Your task to perform on an android device: toggle notification dots Image 0: 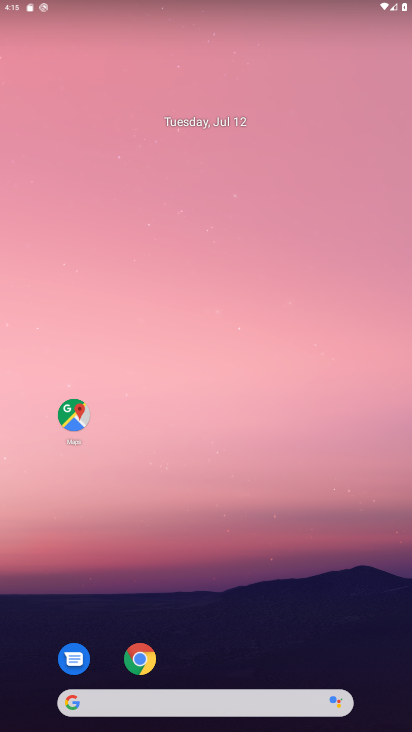
Step 0: drag from (46, 687) to (232, 300)
Your task to perform on an android device: toggle notification dots Image 1: 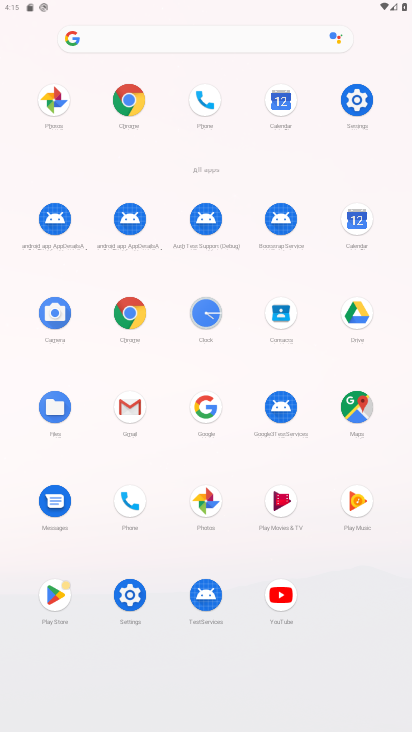
Step 1: click (132, 596)
Your task to perform on an android device: toggle notification dots Image 2: 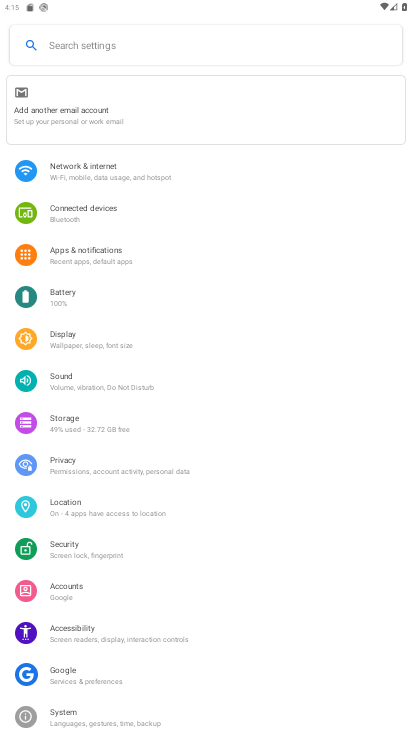
Step 2: click (111, 253)
Your task to perform on an android device: toggle notification dots Image 3: 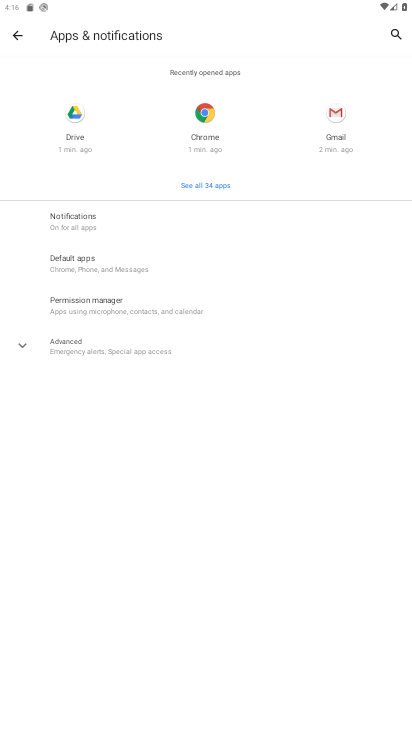
Step 3: click (86, 347)
Your task to perform on an android device: toggle notification dots Image 4: 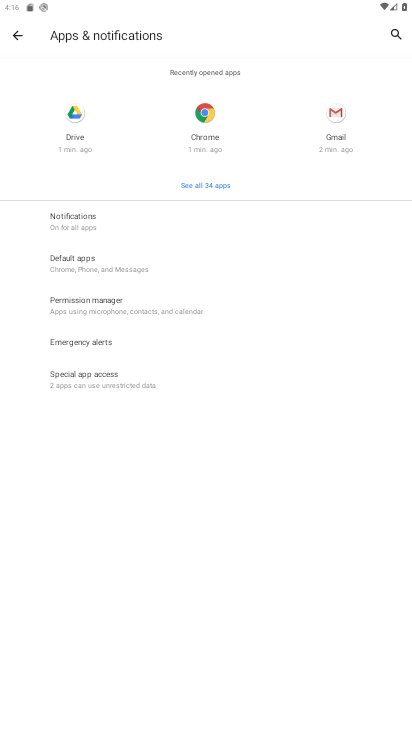
Step 4: click (107, 260)
Your task to perform on an android device: toggle notification dots Image 5: 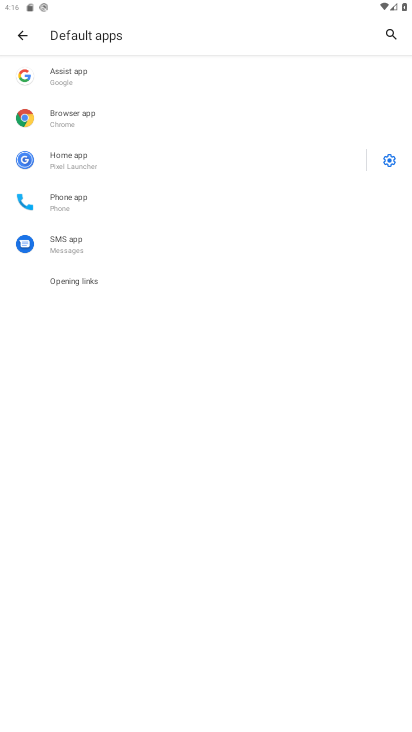
Step 5: click (19, 32)
Your task to perform on an android device: toggle notification dots Image 6: 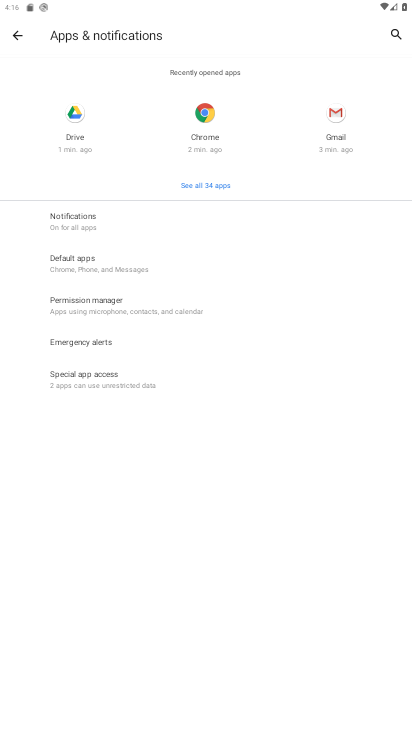
Step 6: task complete